Your task to perform on an android device: Show me the alarms in the clock app Image 0: 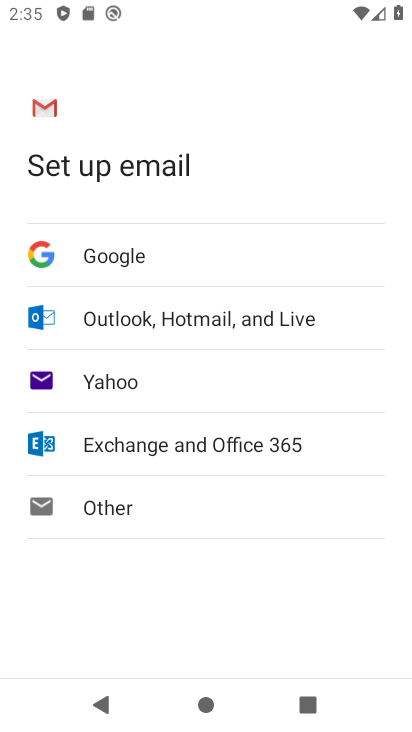
Step 0: press home button
Your task to perform on an android device: Show me the alarms in the clock app Image 1: 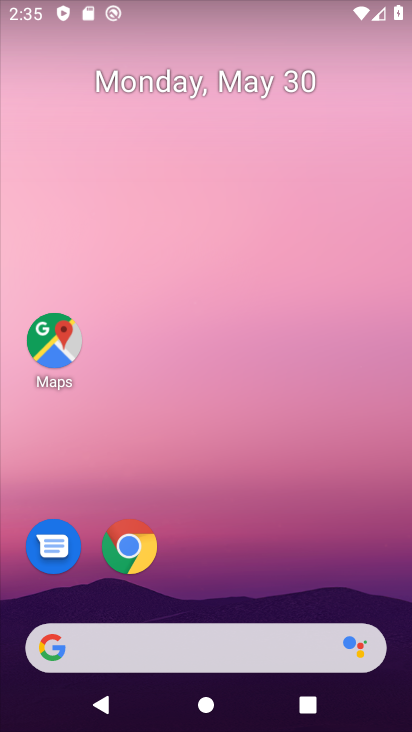
Step 1: drag from (281, 542) to (153, 141)
Your task to perform on an android device: Show me the alarms in the clock app Image 2: 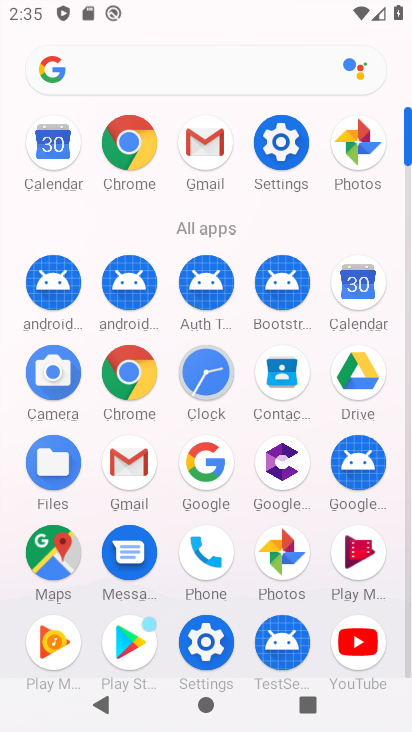
Step 2: click (210, 375)
Your task to perform on an android device: Show me the alarms in the clock app Image 3: 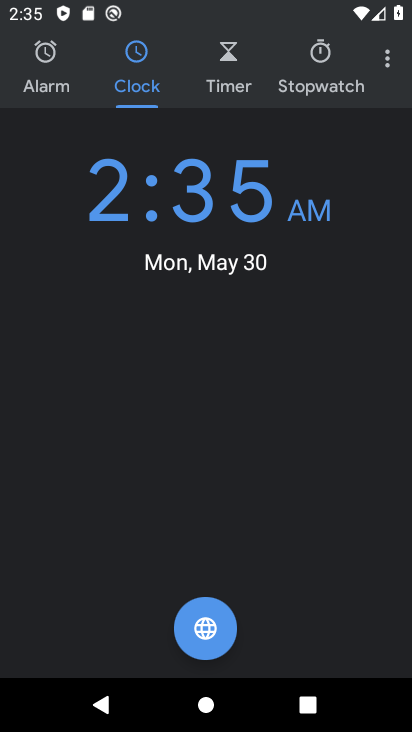
Step 3: click (37, 73)
Your task to perform on an android device: Show me the alarms in the clock app Image 4: 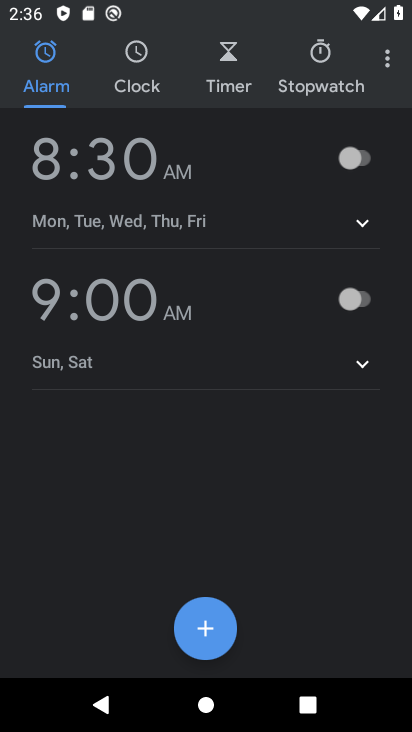
Step 4: task complete